Your task to perform on an android device: Go to privacy settings Image 0: 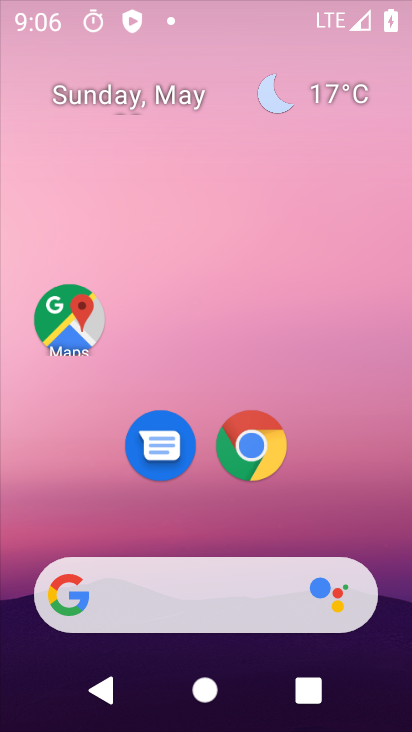
Step 0: click (394, 502)
Your task to perform on an android device: Go to privacy settings Image 1: 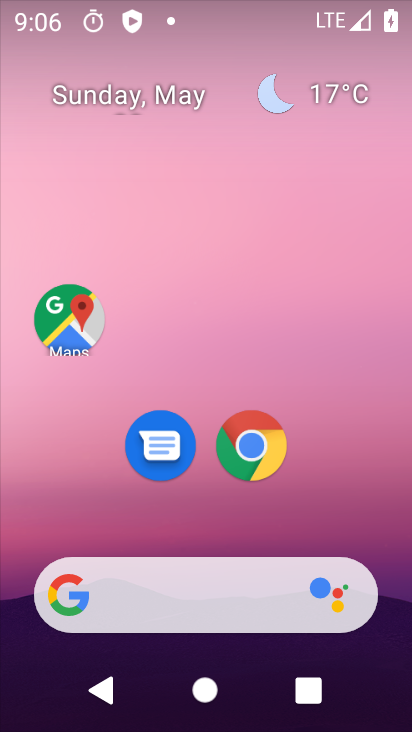
Step 1: drag from (257, 444) to (271, 351)
Your task to perform on an android device: Go to privacy settings Image 2: 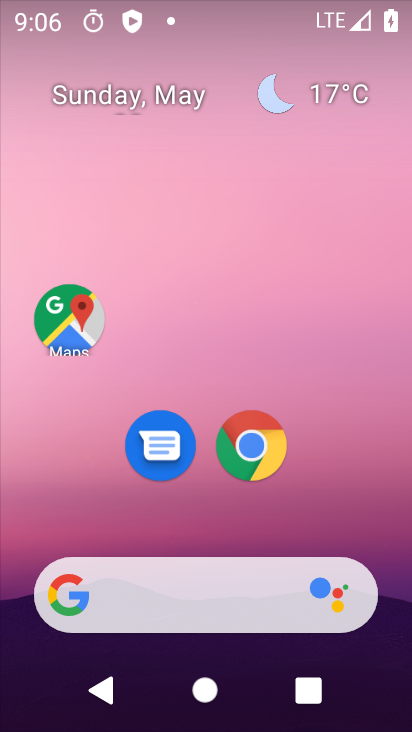
Step 2: drag from (218, 471) to (293, 8)
Your task to perform on an android device: Go to privacy settings Image 3: 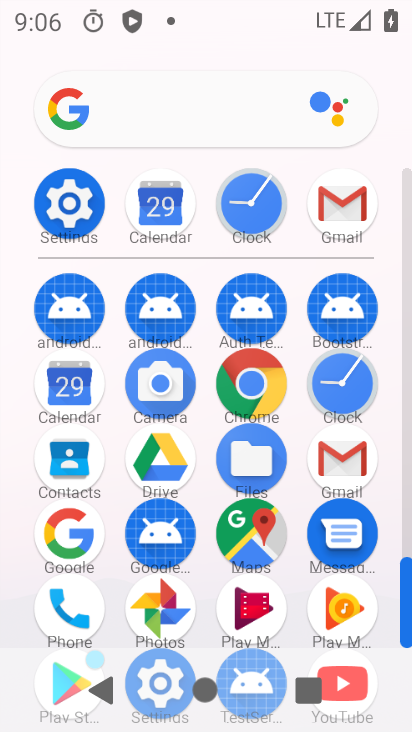
Step 3: click (74, 203)
Your task to perform on an android device: Go to privacy settings Image 4: 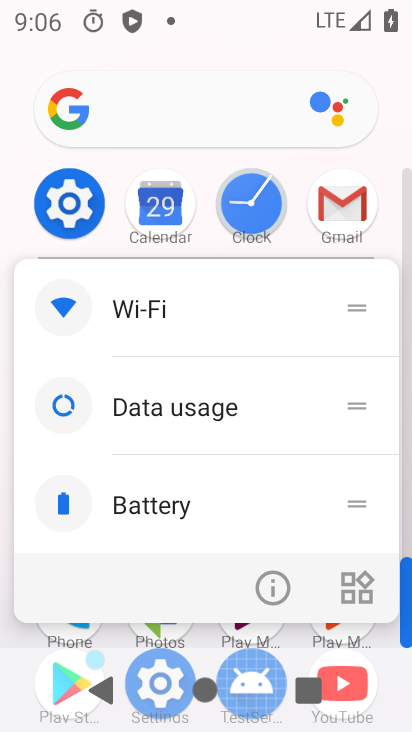
Step 4: click (296, 605)
Your task to perform on an android device: Go to privacy settings Image 5: 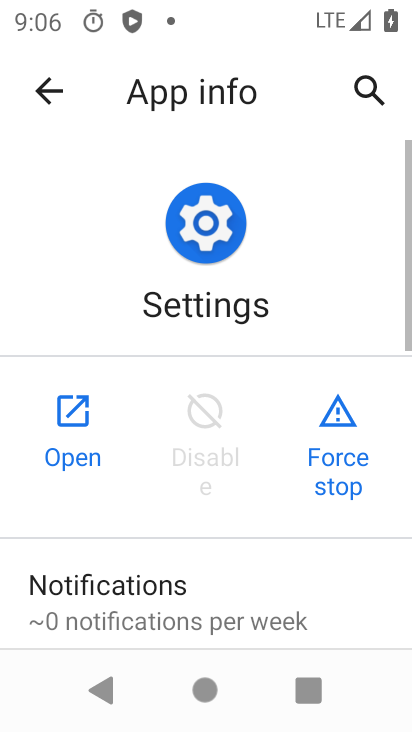
Step 5: click (62, 433)
Your task to perform on an android device: Go to privacy settings Image 6: 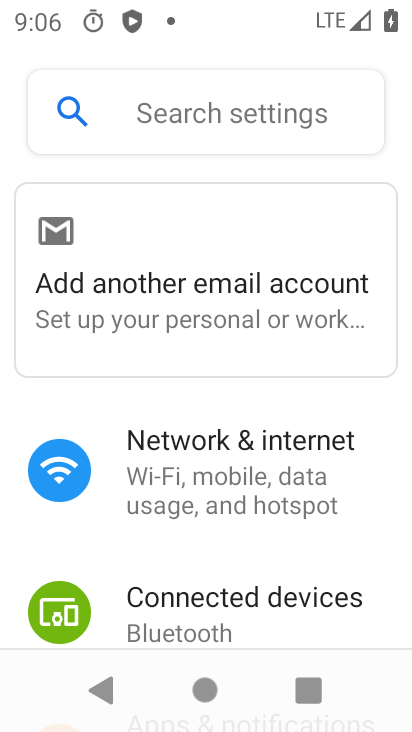
Step 6: drag from (205, 526) to (346, 27)
Your task to perform on an android device: Go to privacy settings Image 7: 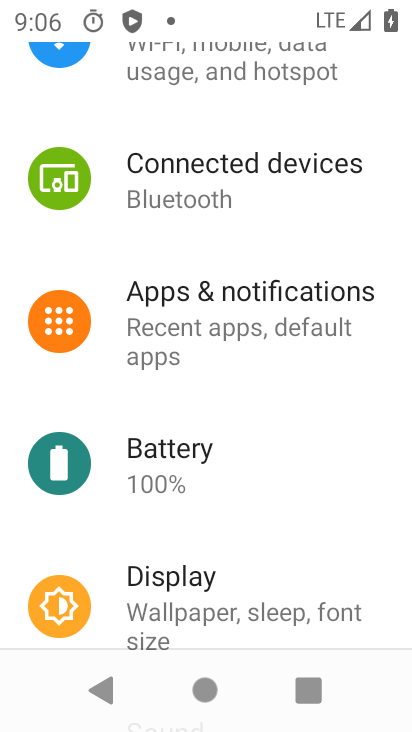
Step 7: drag from (171, 560) to (300, 49)
Your task to perform on an android device: Go to privacy settings Image 8: 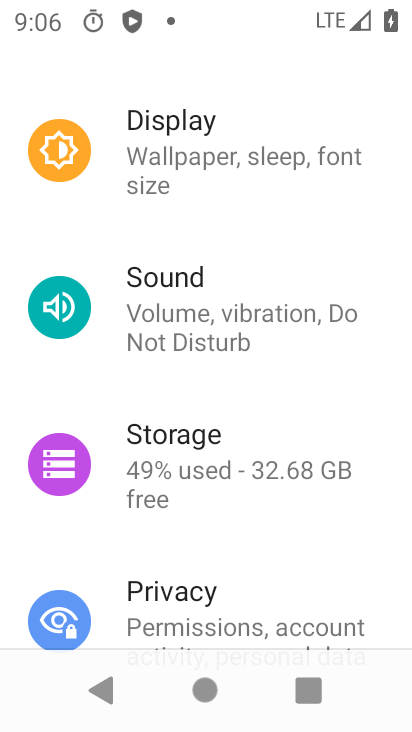
Step 8: click (196, 595)
Your task to perform on an android device: Go to privacy settings Image 9: 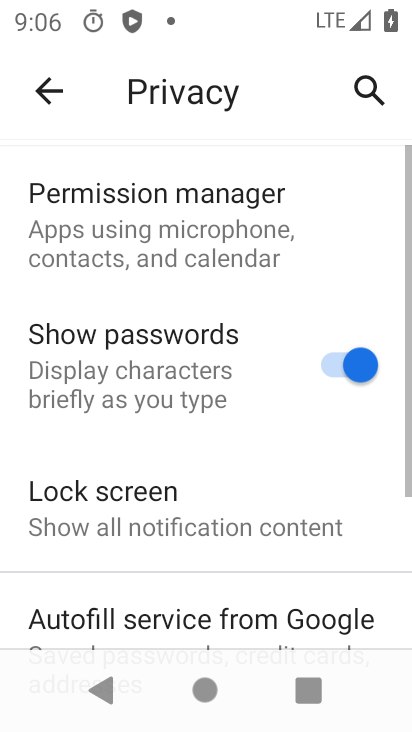
Step 9: task complete